Your task to perform on an android device: change text size in settings app Image 0: 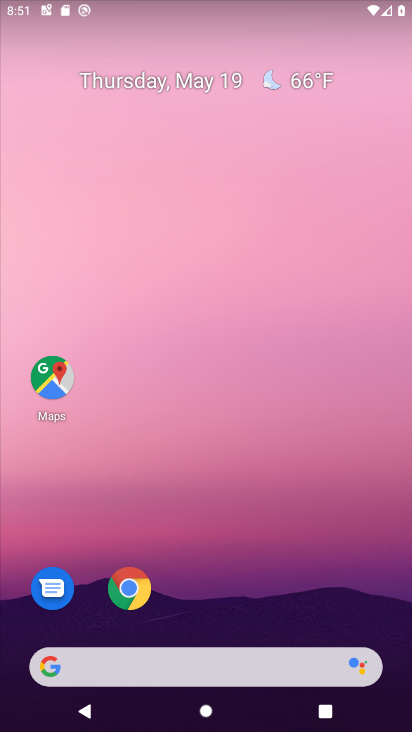
Step 0: drag from (364, 603) to (359, 250)
Your task to perform on an android device: change text size in settings app Image 1: 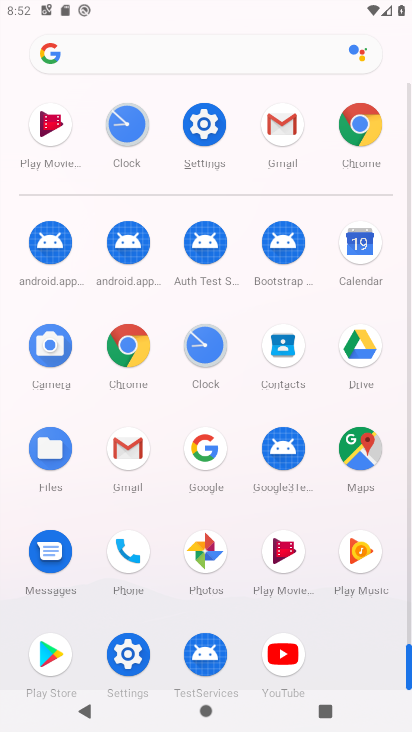
Step 1: click (137, 660)
Your task to perform on an android device: change text size in settings app Image 2: 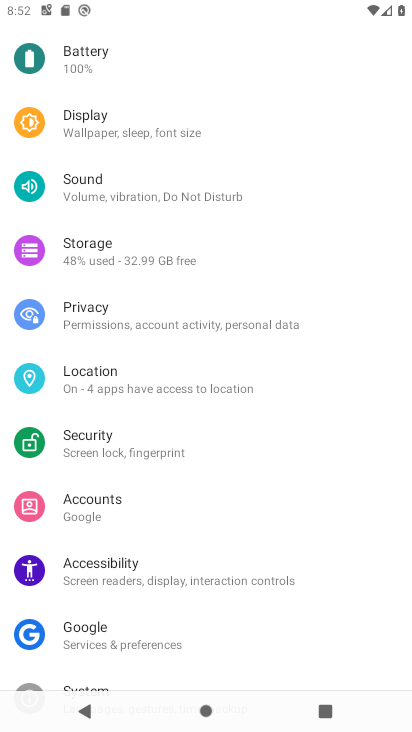
Step 2: drag from (322, 635) to (328, 503)
Your task to perform on an android device: change text size in settings app Image 3: 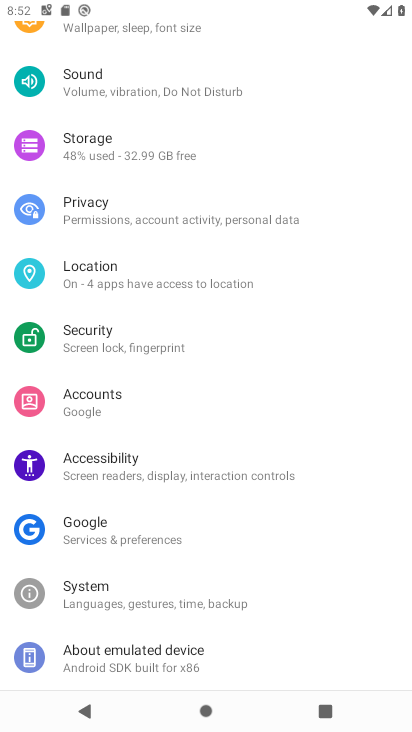
Step 3: drag from (339, 654) to (339, 491)
Your task to perform on an android device: change text size in settings app Image 4: 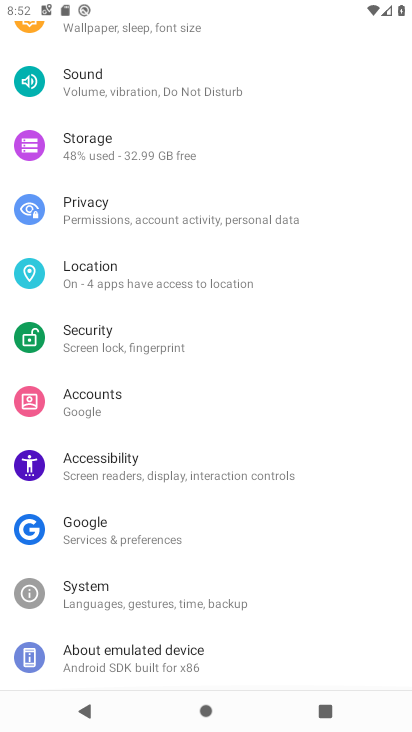
Step 4: drag from (349, 350) to (323, 511)
Your task to perform on an android device: change text size in settings app Image 5: 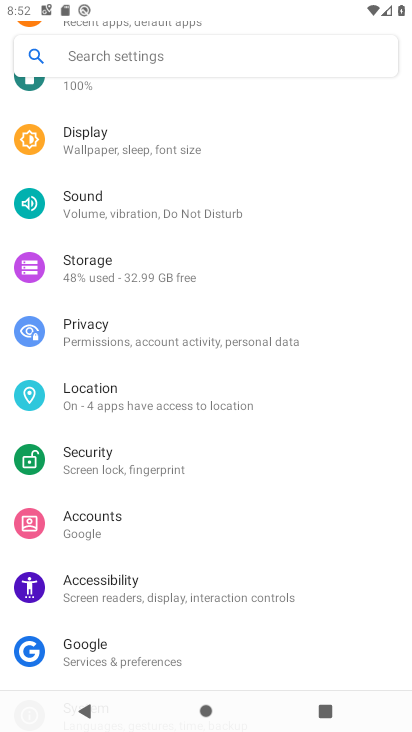
Step 5: drag from (354, 339) to (345, 472)
Your task to perform on an android device: change text size in settings app Image 6: 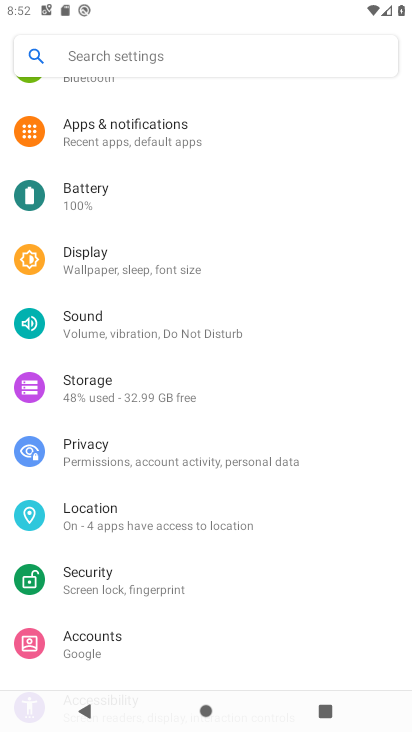
Step 6: drag from (355, 310) to (359, 447)
Your task to perform on an android device: change text size in settings app Image 7: 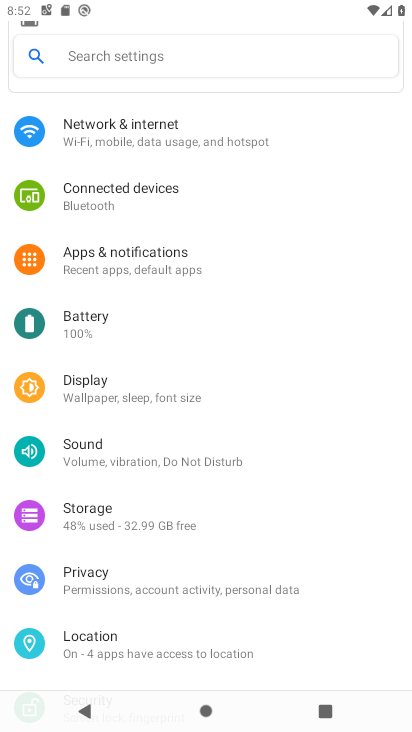
Step 7: drag from (353, 292) to (340, 451)
Your task to perform on an android device: change text size in settings app Image 8: 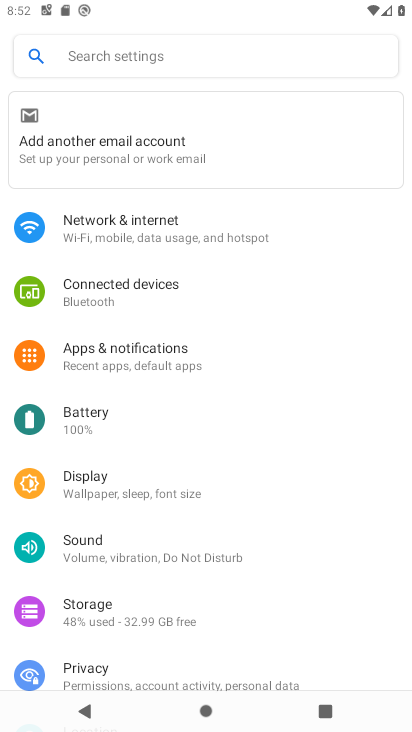
Step 8: drag from (332, 298) to (321, 417)
Your task to perform on an android device: change text size in settings app Image 9: 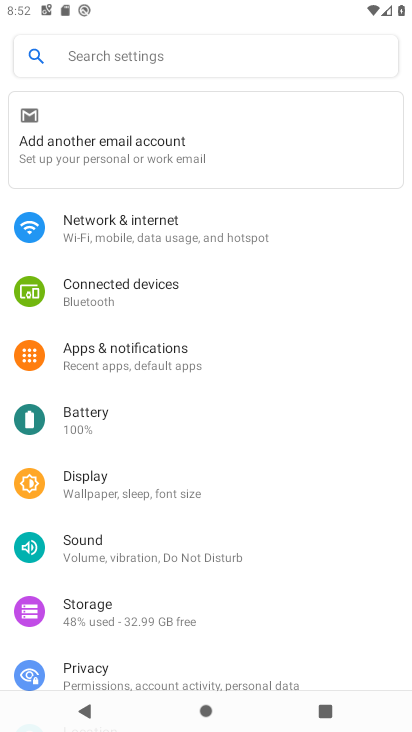
Step 9: click (165, 488)
Your task to perform on an android device: change text size in settings app Image 10: 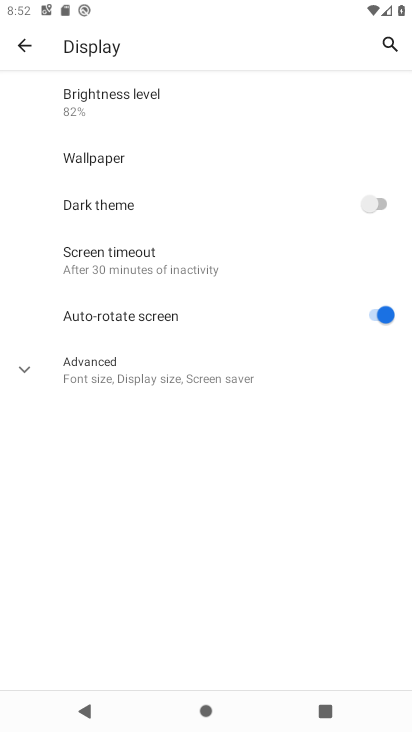
Step 10: click (201, 360)
Your task to perform on an android device: change text size in settings app Image 11: 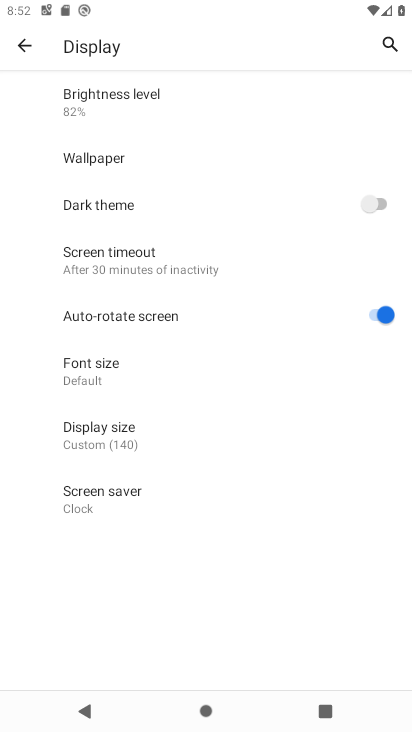
Step 11: click (112, 375)
Your task to perform on an android device: change text size in settings app Image 12: 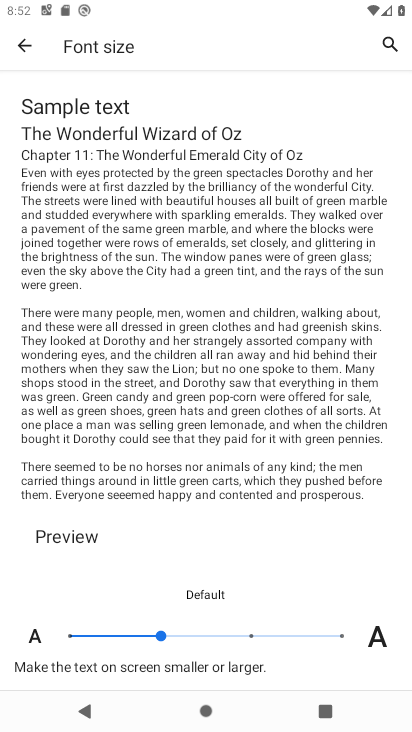
Step 12: click (252, 637)
Your task to perform on an android device: change text size in settings app Image 13: 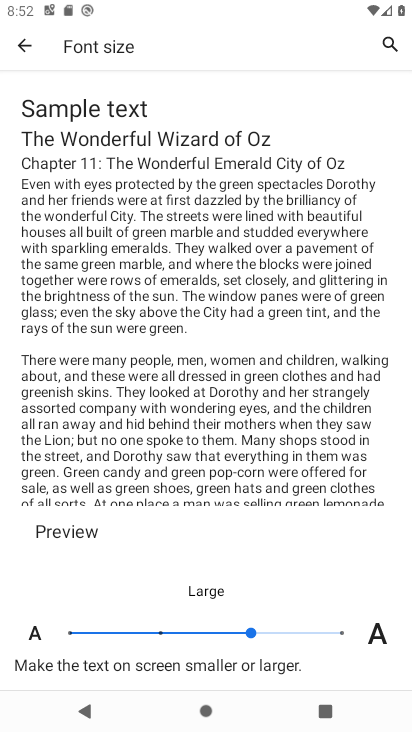
Step 13: task complete